Your task to perform on an android device: star an email in the gmail app Image 0: 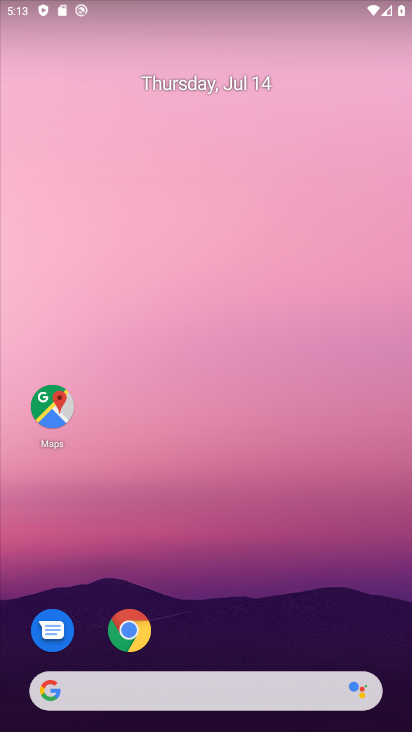
Step 0: press home button
Your task to perform on an android device: star an email in the gmail app Image 1: 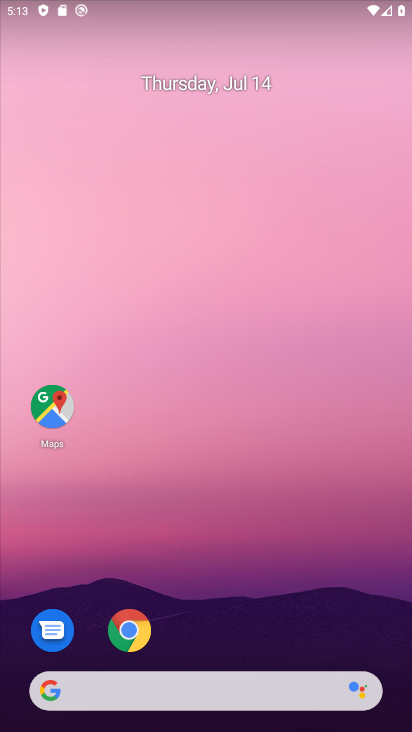
Step 1: drag from (277, 632) to (271, 43)
Your task to perform on an android device: star an email in the gmail app Image 2: 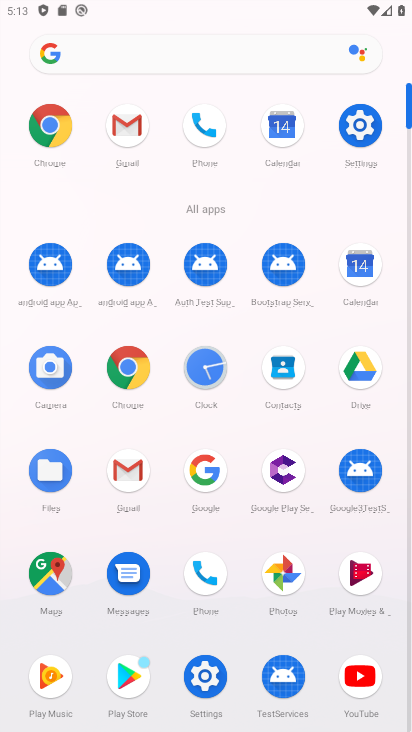
Step 2: click (122, 132)
Your task to perform on an android device: star an email in the gmail app Image 3: 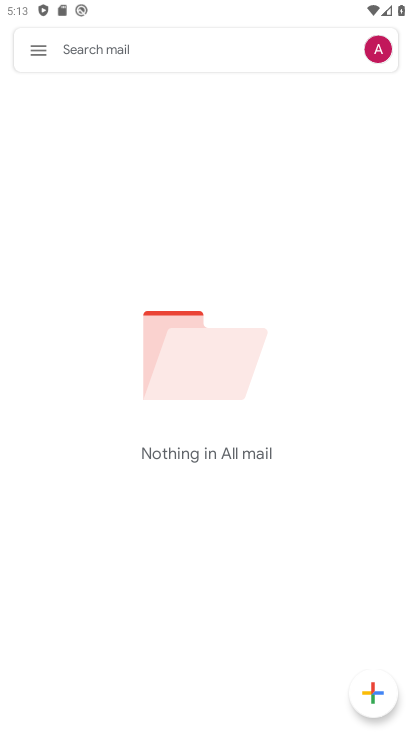
Step 3: click (41, 47)
Your task to perform on an android device: star an email in the gmail app Image 4: 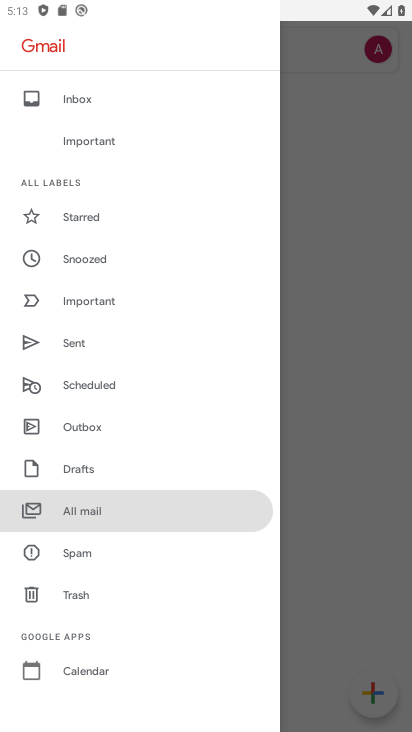
Step 4: click (125, 513)
Your task to perform on an android device: star an email in the gmail app Image 5: 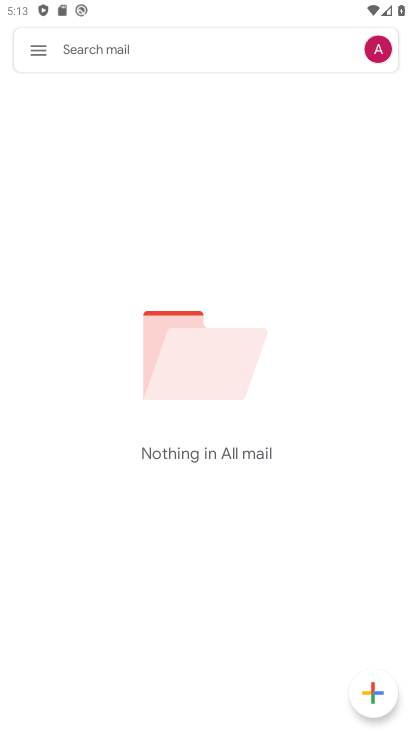
Step 5: task complete